Your task to perform on an android device: open a bookmark in the chrome app Image 0: 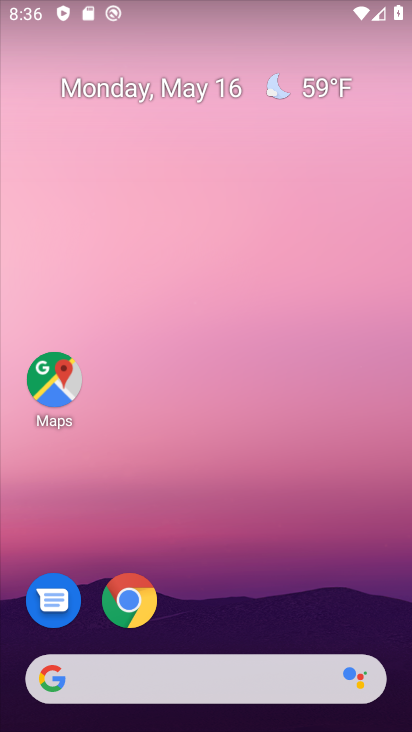
Step 0: click (128, 599)
Your task to perform on an android device: open a bookmark in the chrome app Image 1: 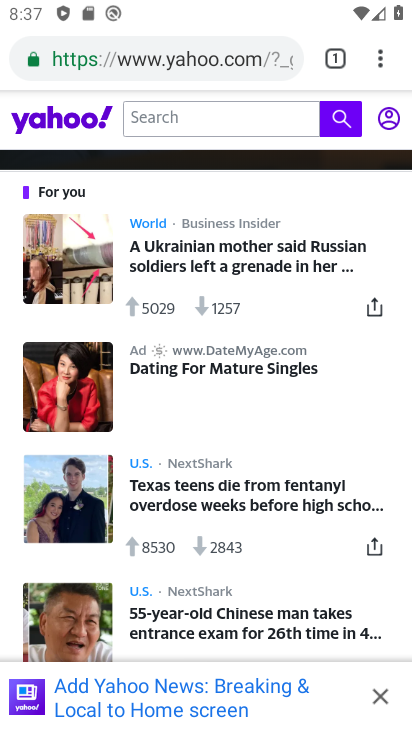
Step 1: click (380, 64)
Your task to perform on an android device: open a bookmark in the chrome app Image 2: 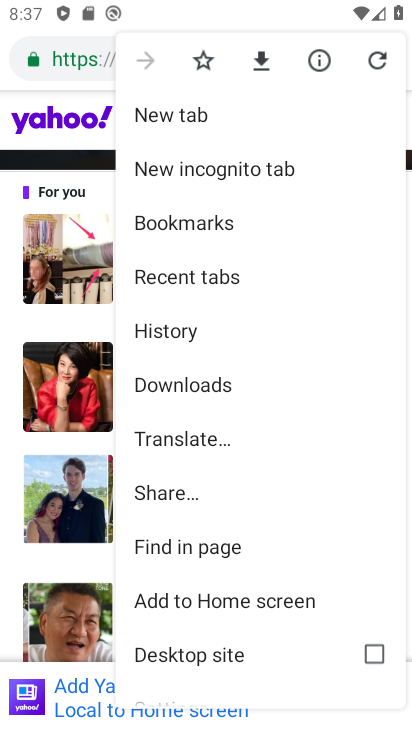
Step 2: click (180, 218)
Your task to perform on an android device: open a bookmark in the chrome app Image 3: 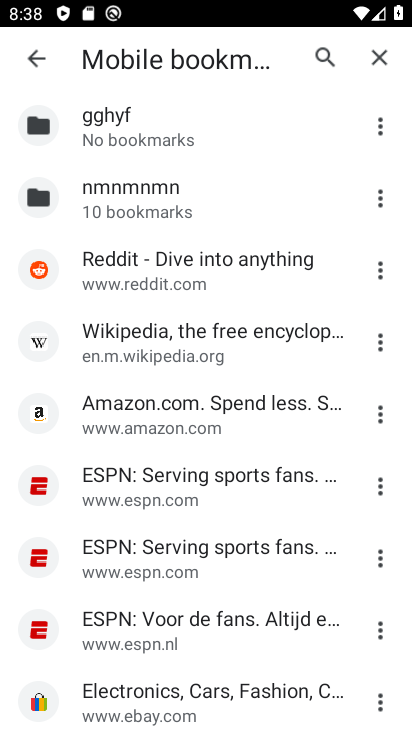
Step 3: task complete